Your task to perform on an android device: install app "Google Play services" Image 0: 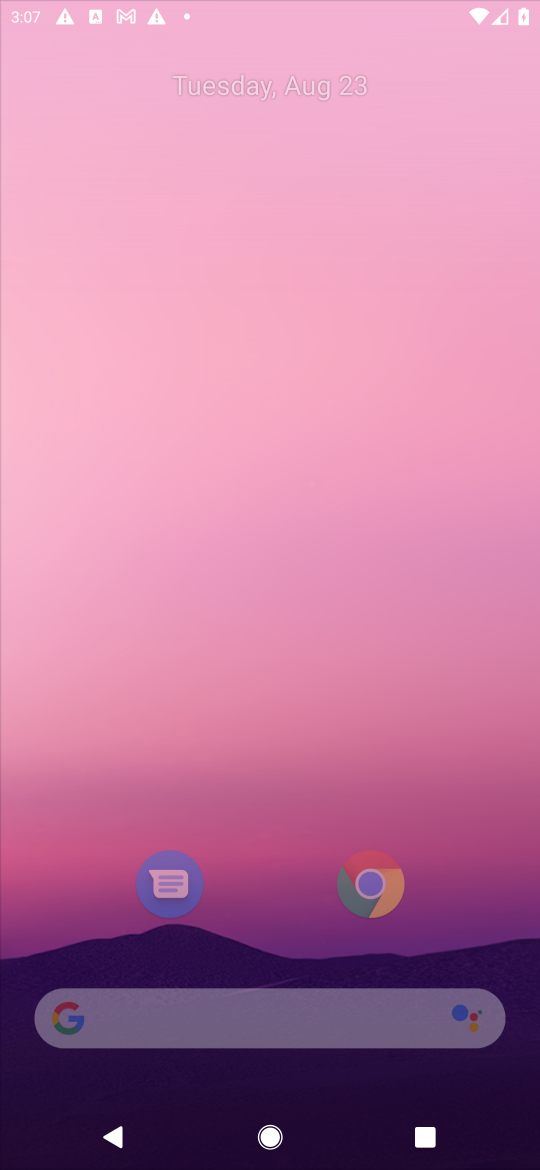
Step 0: press home button
Your task to perform on an android device: install app "Google Play services" Image 1: 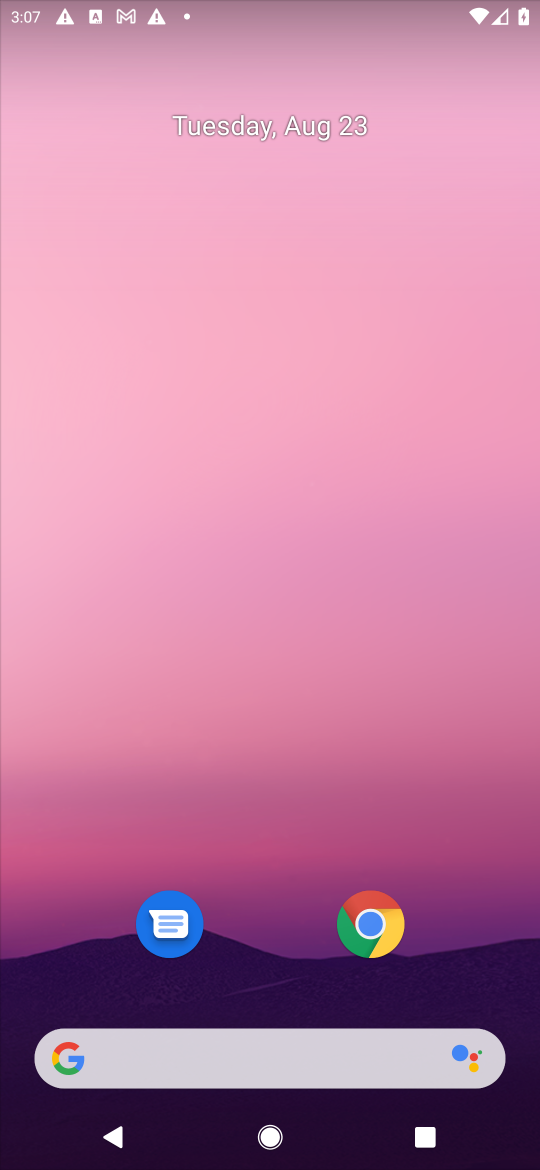
Step 1: drag from (478, 936) to (420, 75)
Your task to perform on an android device: install app "Google Play services" Image 2: 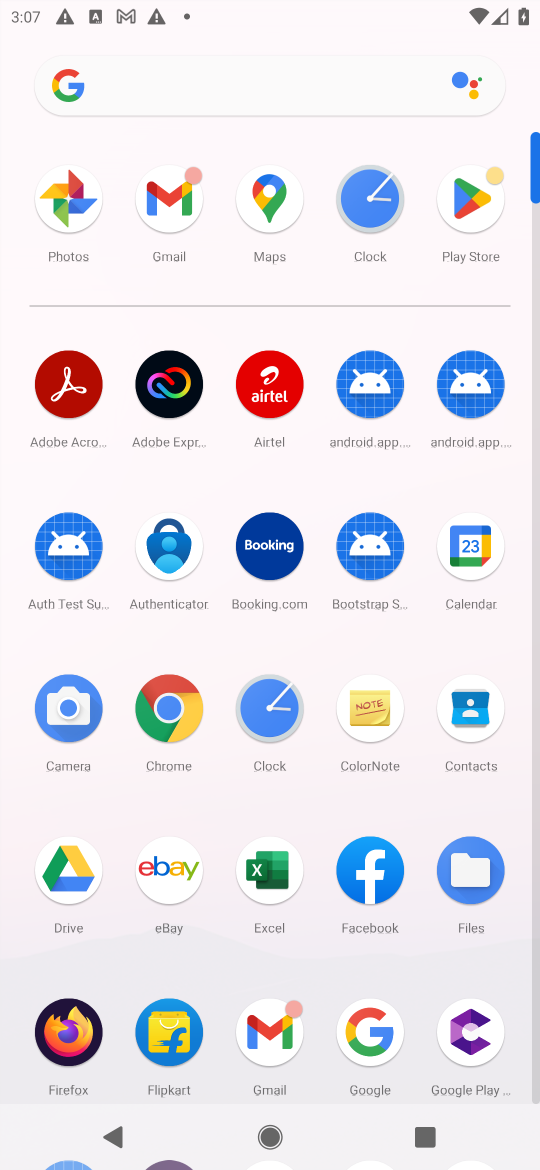
Step 2: click (471, 210)
Your task to perform on an android device: install app "Google Play services" Image 3: 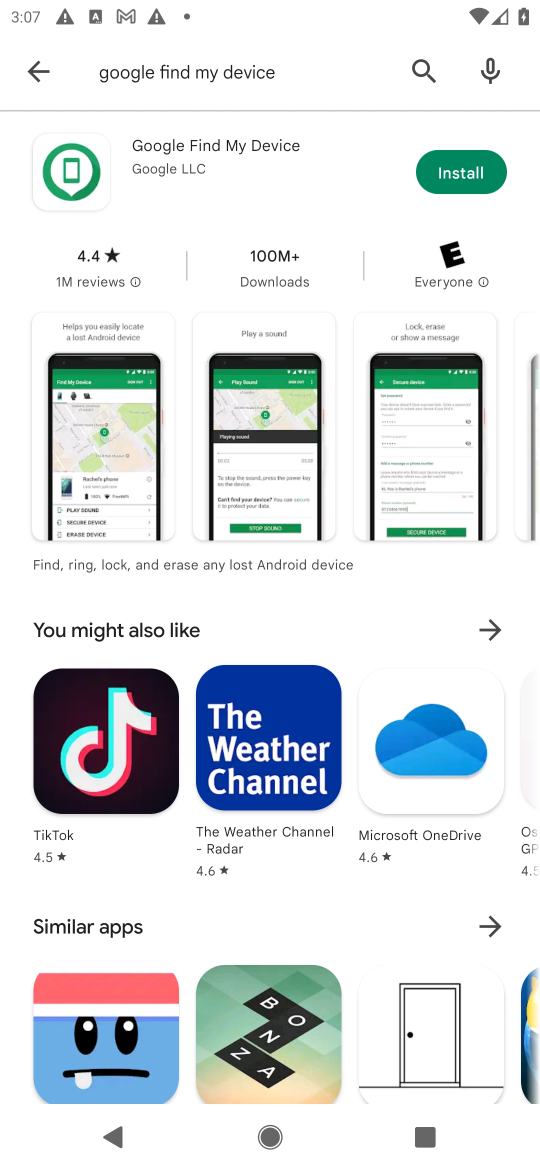
Step 3: press back button
Your task to perform on an android device: install app "Google Play services" Image 4: 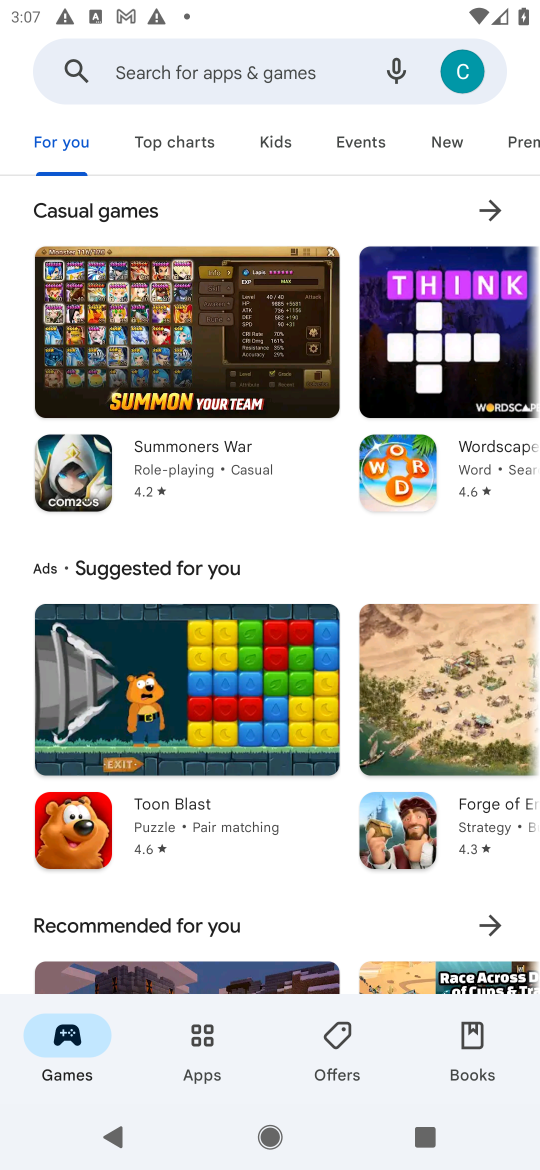
Step 4: click (252, 66)
Your task to perform on an android device: install app "Google Play services" Image 5: 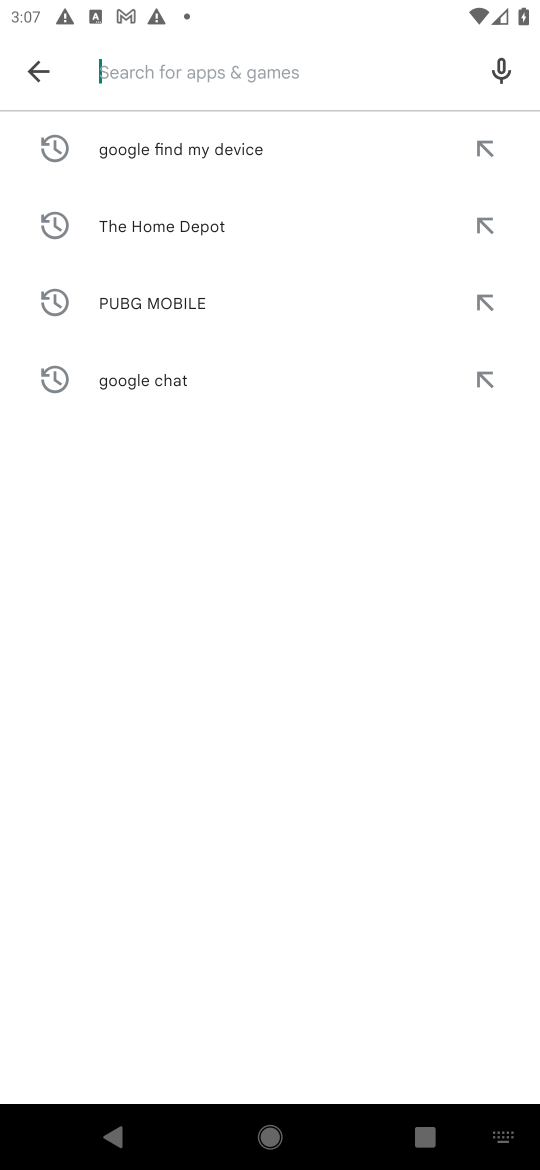
Step 5: press enter
Your task to perform on an android device: install app "Google Play services" Image 6: 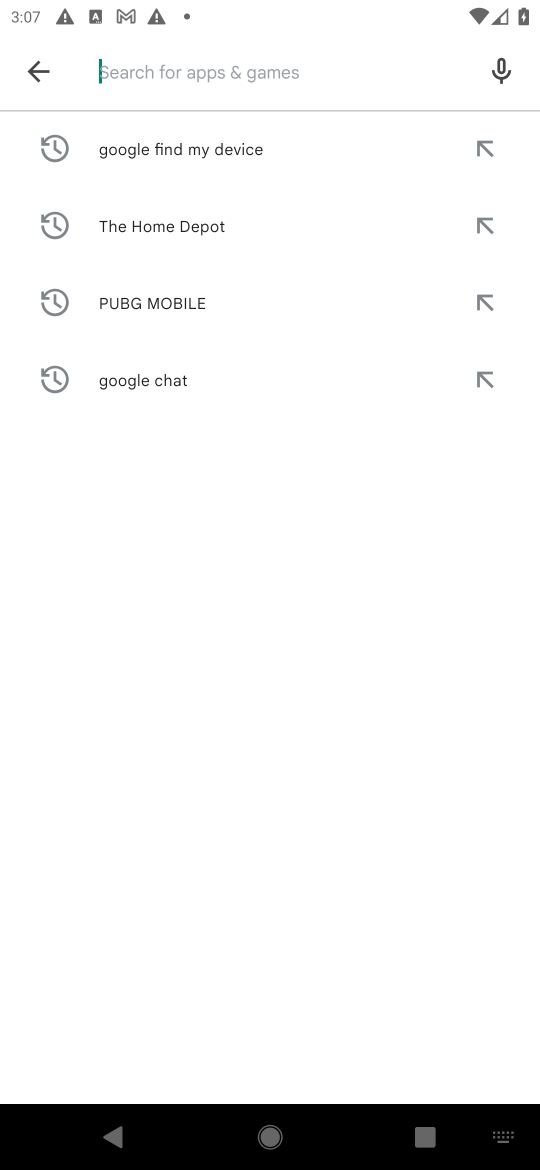
Step 6: type "Google Play services"
Your task to perform on an android device: install app "Google Play services" Image 7: 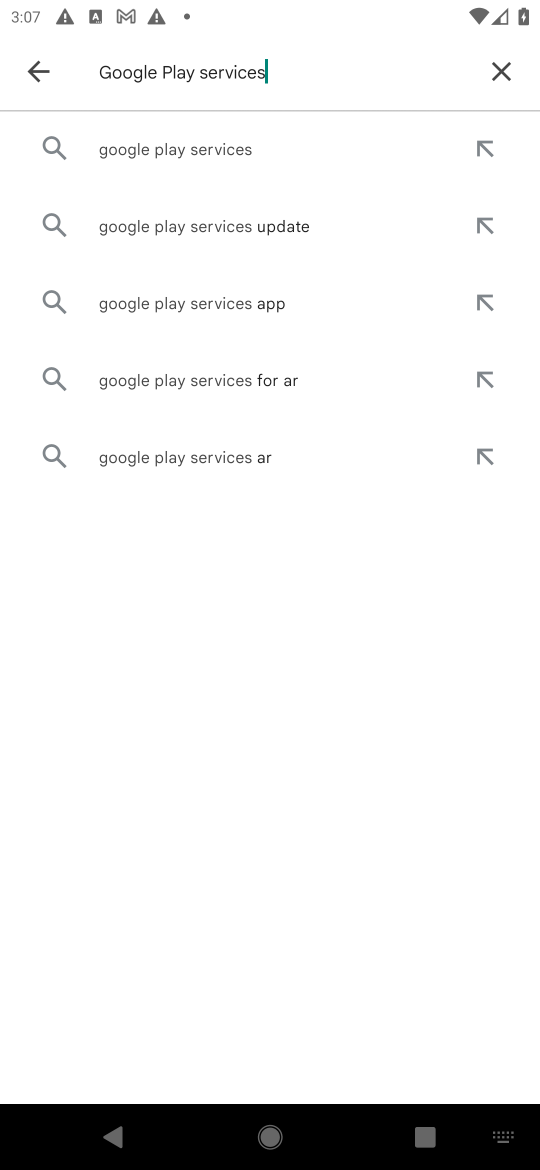
Step 7: click (237, 149)
Your task to perform on an android device: install app "Google Play services" Image 8: 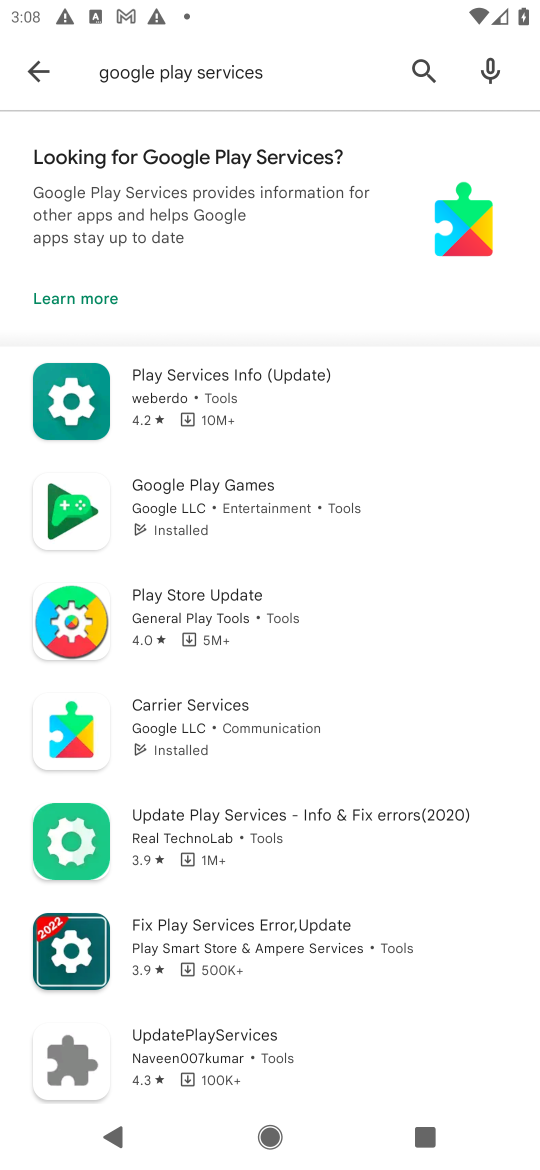
Step 8: task complete